Your task to perform on an android device: Go to accessibility settings Image 0: 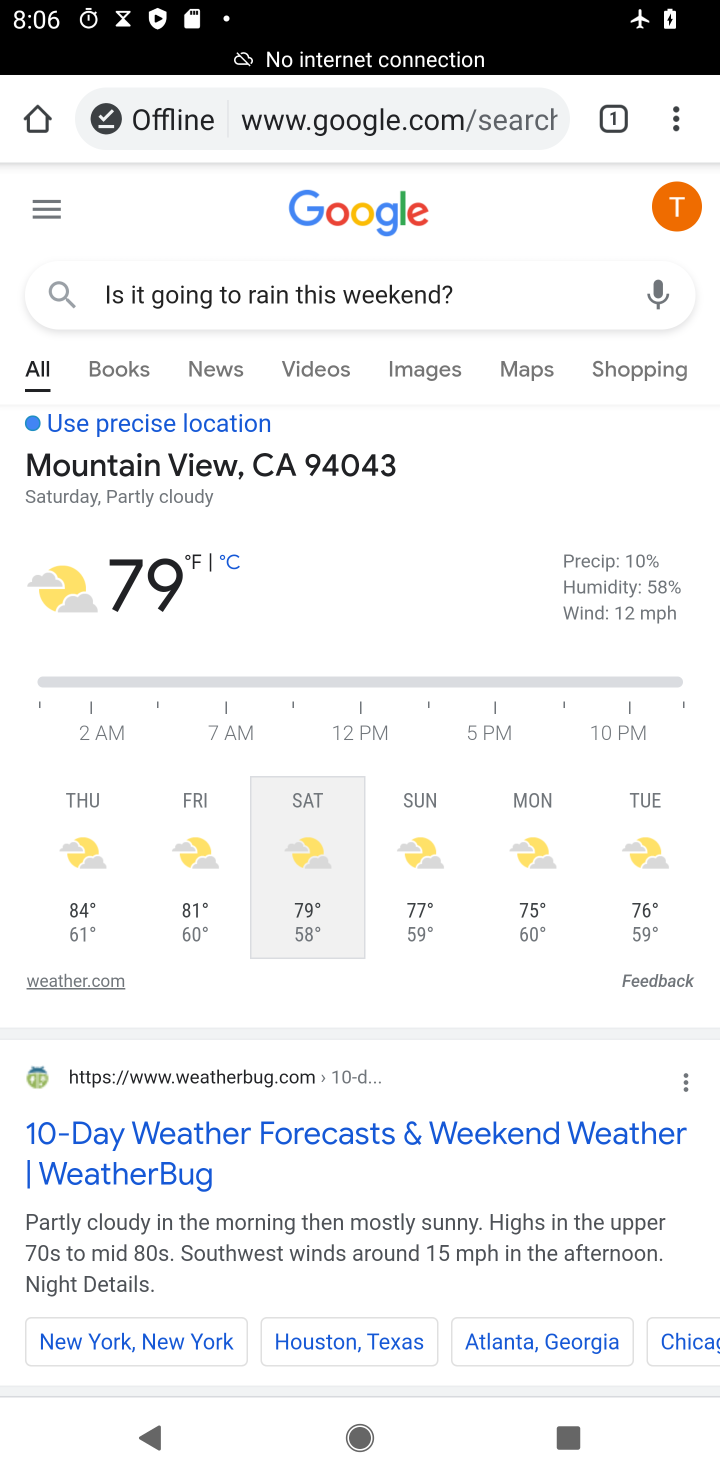
Step 0: press home button
Your task to perform on an android device: Go to accessibility settings Image 1: 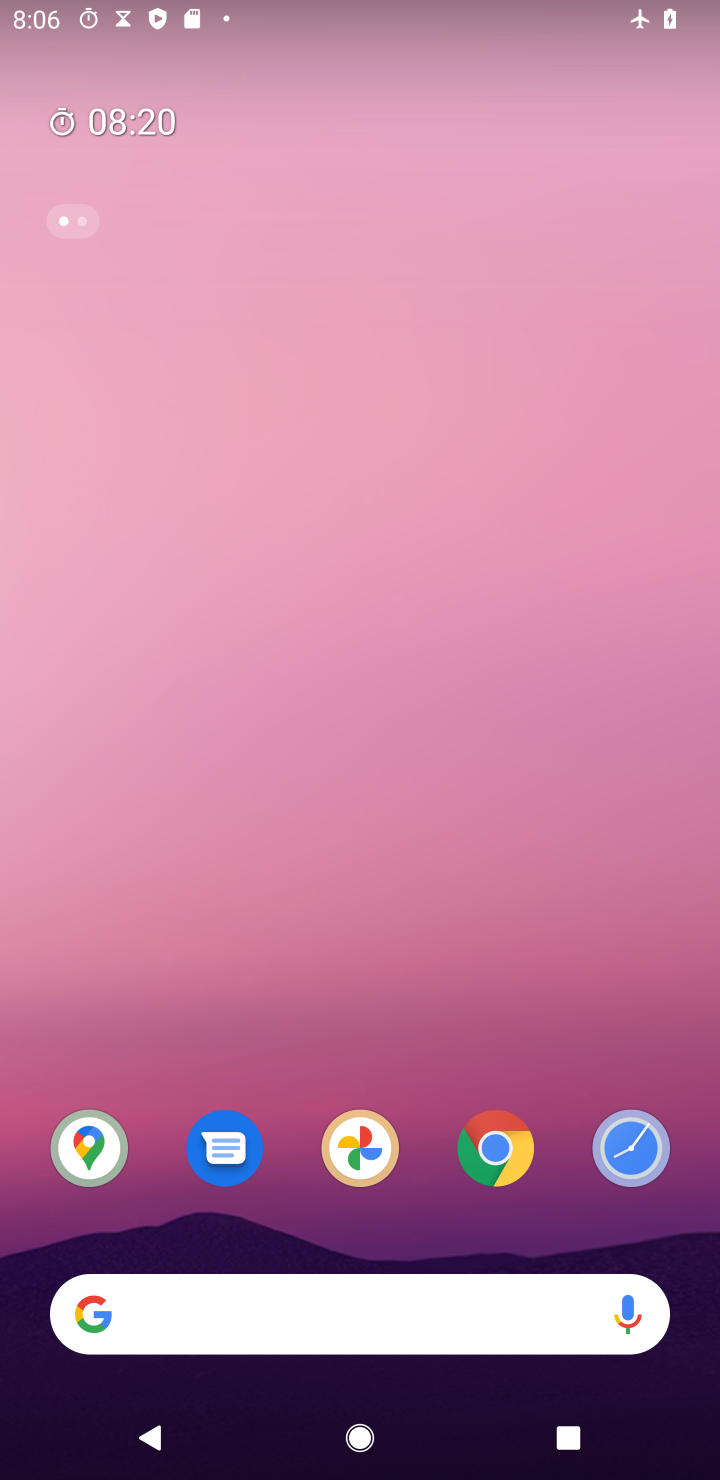
Step 1: drag from (554, 1100) to (464, 148)
Your task to perform on an android device: Go to accessibility settings Image 2: 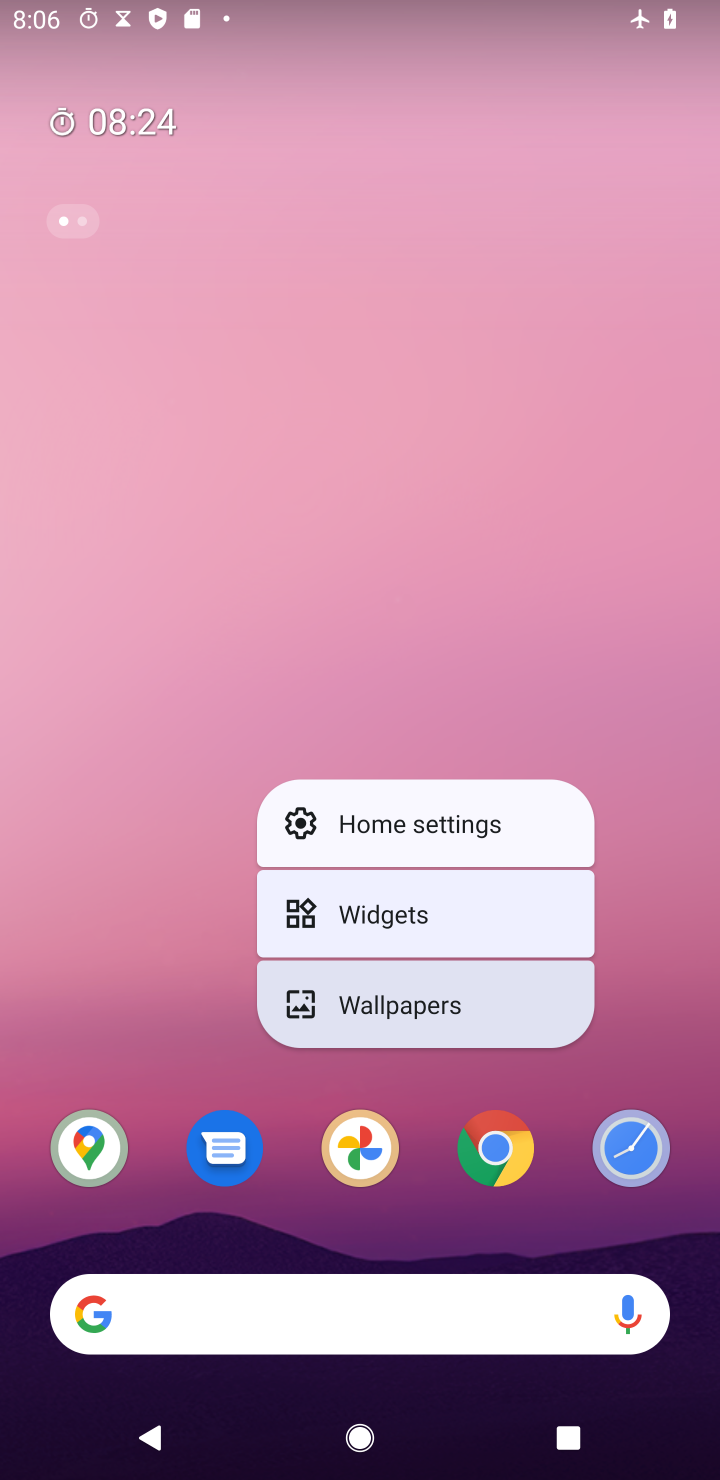
Step 2: drag from (688, 1043) to (536, 158)
Your task to perform on an android device: Go to accessibility settings Image 3: 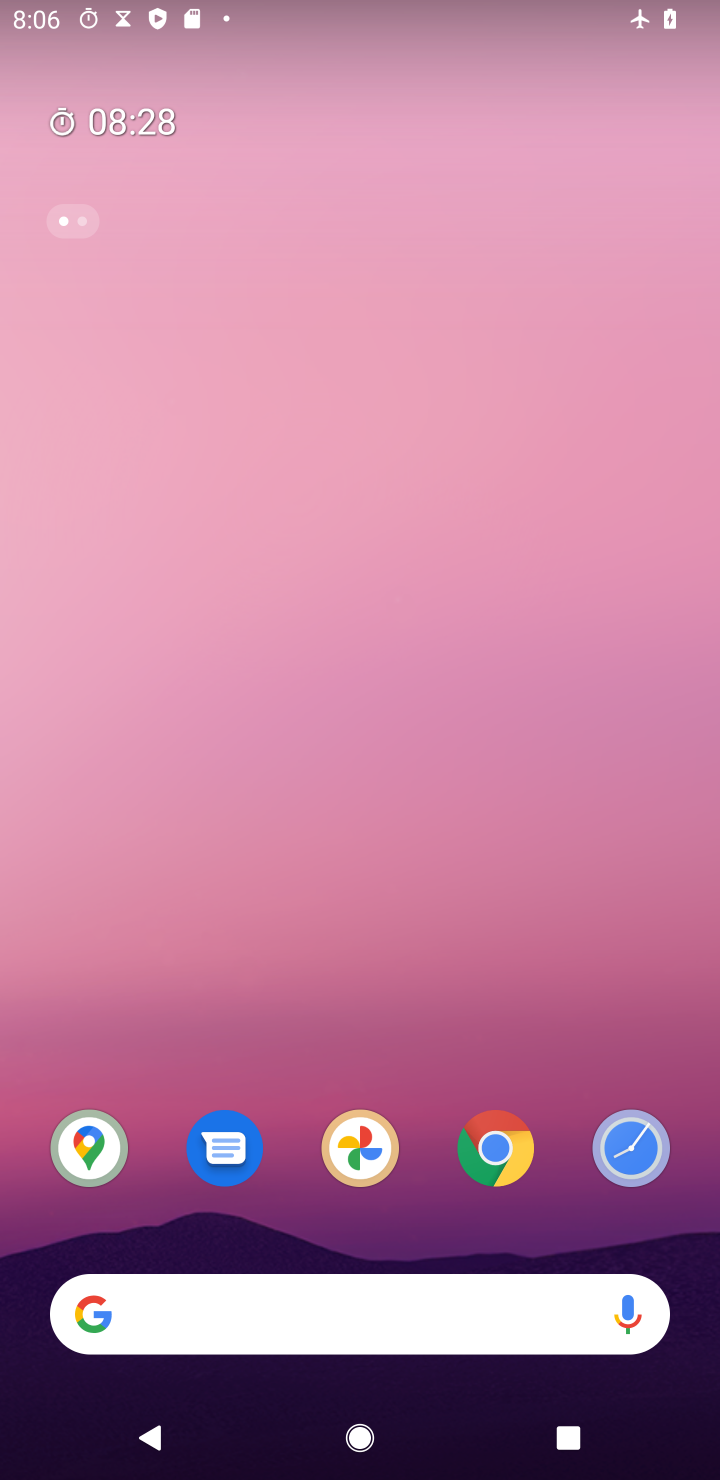
Step 3: drag from (572, 1086) to (496, 298)
Your task to perform on an android device: Go to accessibility settings Image 4: 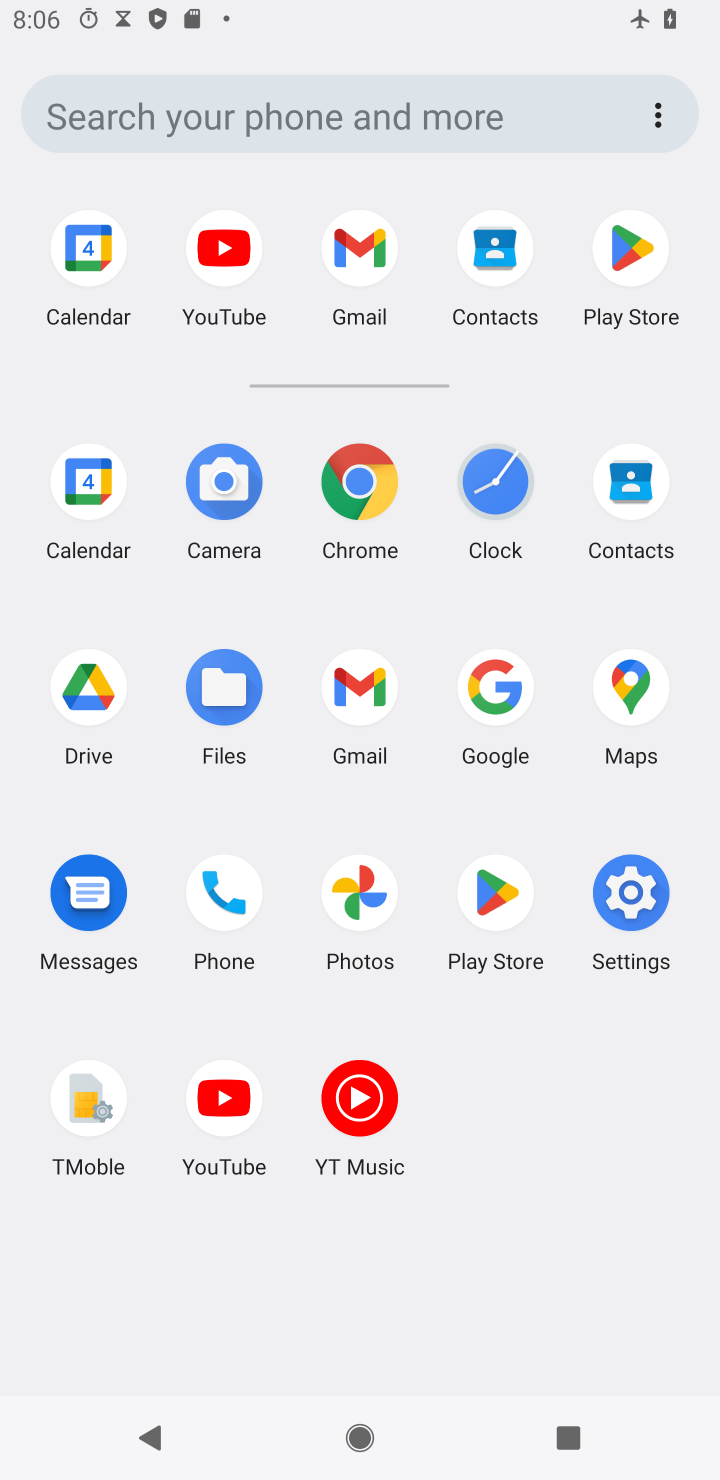
Step 4: click (627, 914)
Your task to perform on an android device: Go to accessibility settings Image 5: 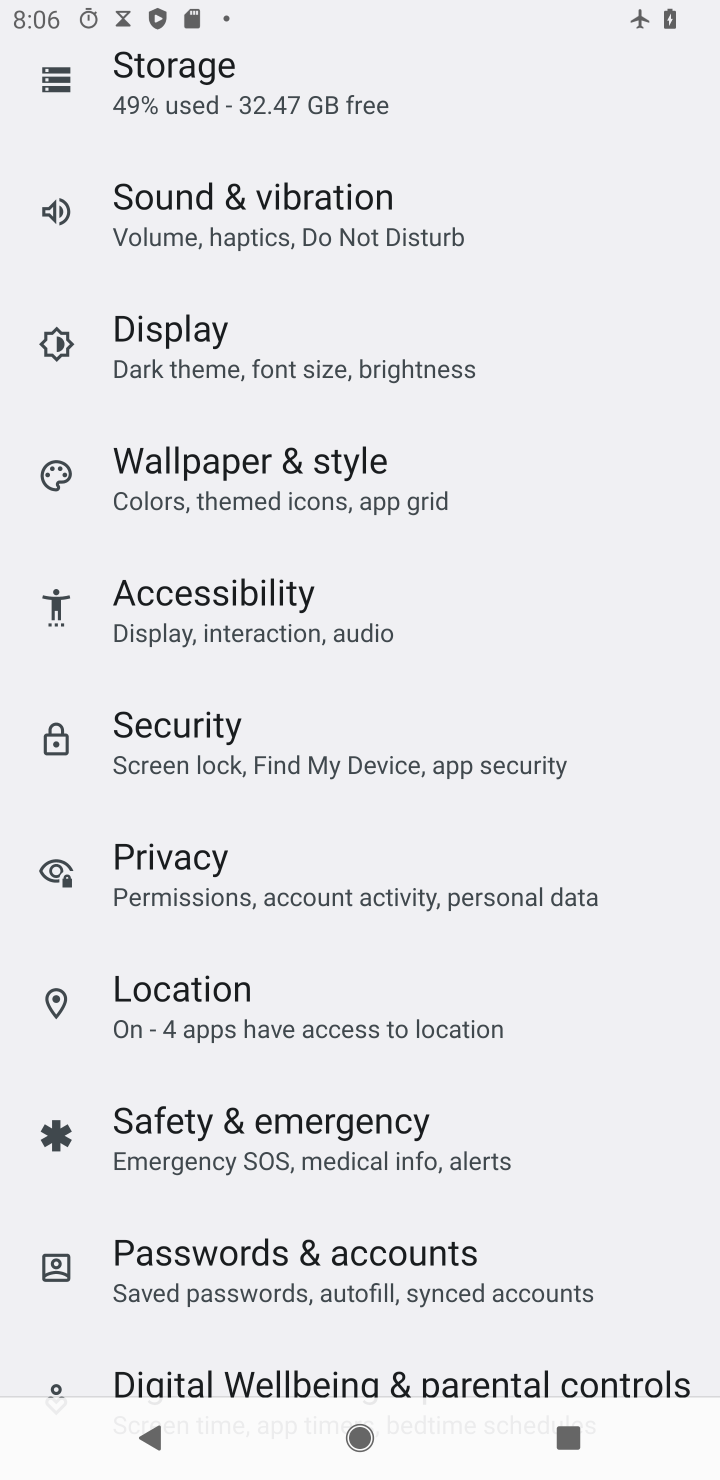
Step 5: click (424, 621)
Your task to perform on an android device: Go to accessibility settings Image 6: 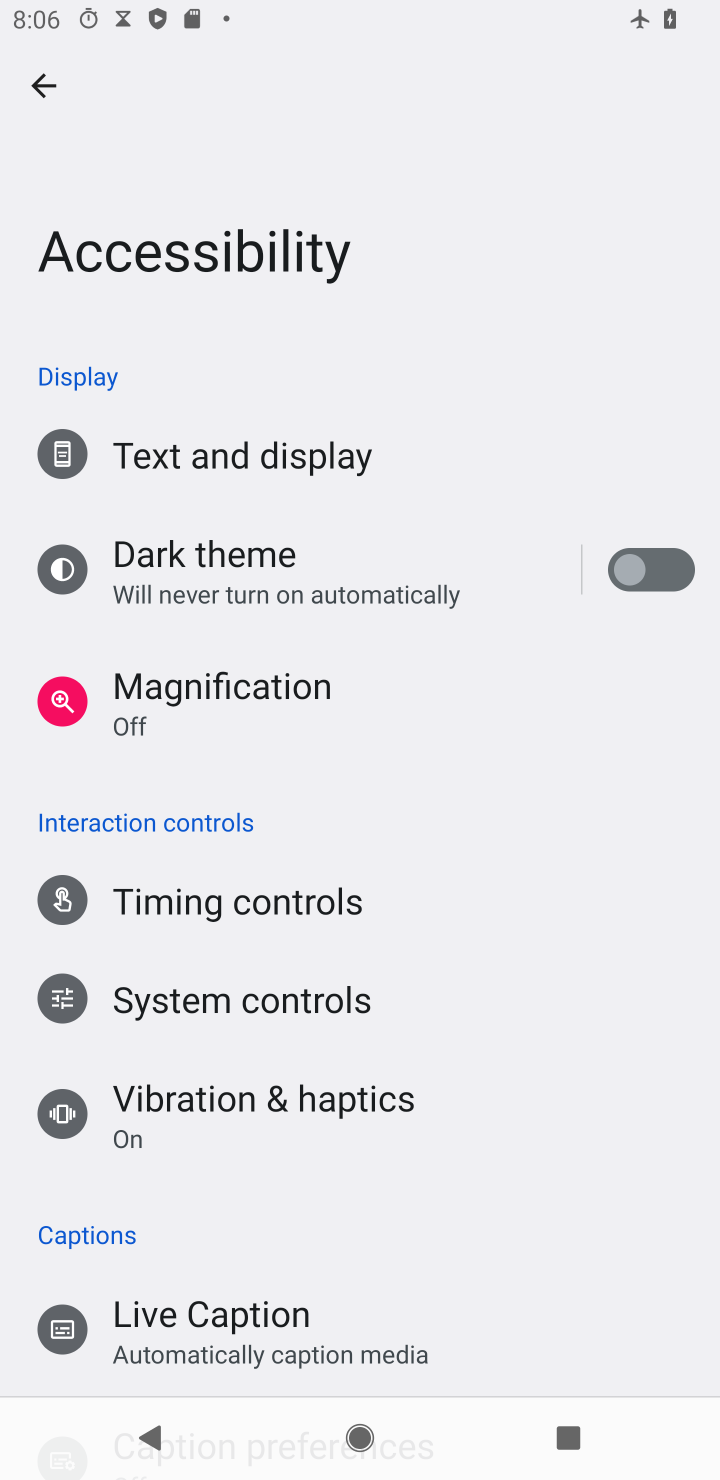
Step 6: task complete